Your task to perform on an android device: turn on javascript in the chrome app Image 0: 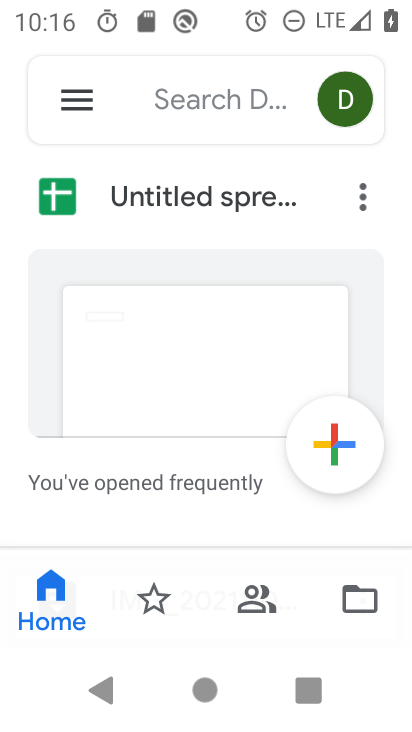
Step 0: drag from (169, 506) to (208, 275)
Your task to perform on an android device: turn on javascript in the chrome app Image 1: 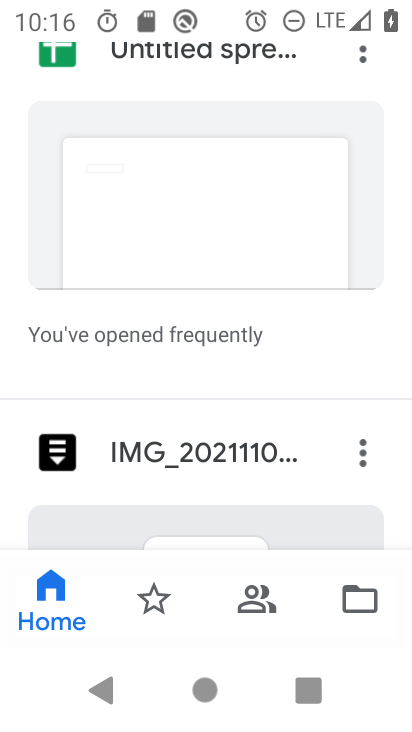
Step 1: press home button
Your task to perform on an android device: turn on javascript in the chrome app Image 2: 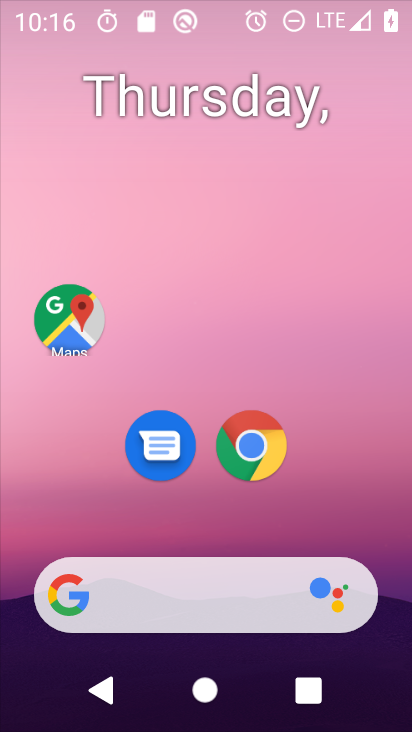
Step 2: drag from (209, 538) to (273, 125)
Your task to perform on an android device: turn on javascript in the chrome app Image 3: 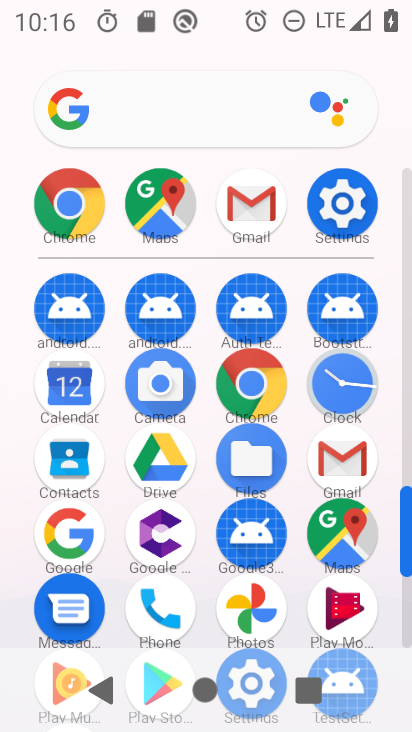
Step 3: click (245, 377)
Your task to perform on an android device: turn on javascript in the chrome app Image 4: 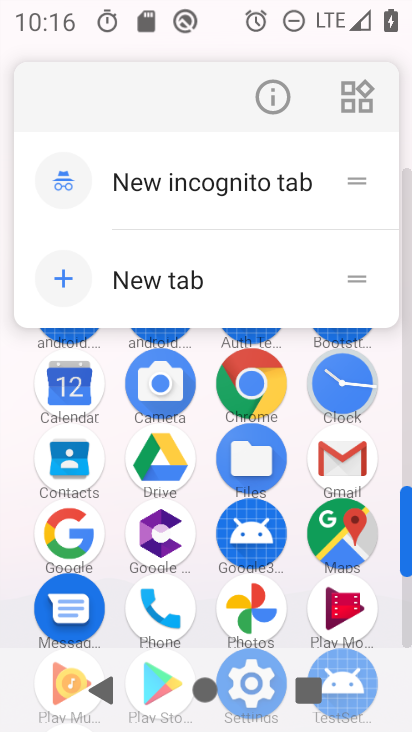
Step 4: click (273, 101)
Your task to perform on an android device: turn on javascript in the chrome app Image 5: 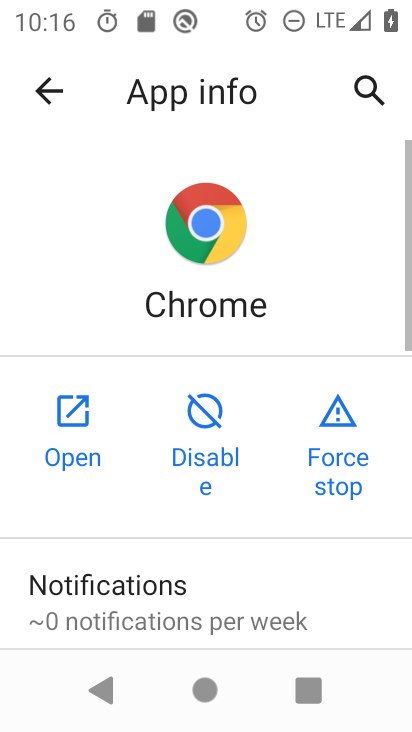
Step 5: click (56, 425)
Your task to perform on an android device: turn on javascript in the chrome app Image 6: 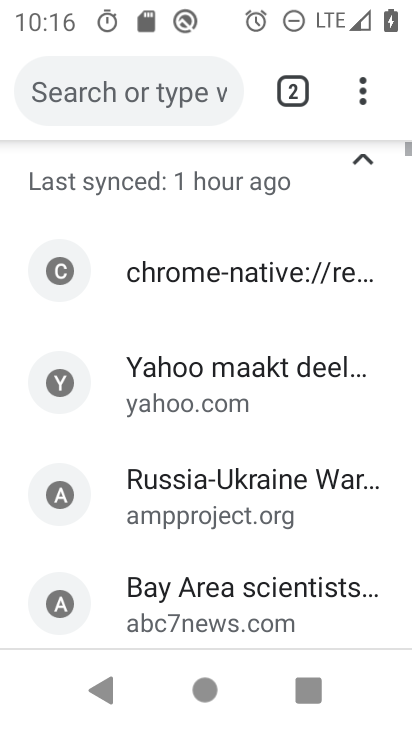
Step 6: drag from (364, 90) to (122, 465)
Your task to perform on an android device: turn on javascript in the chrome app Image 7: 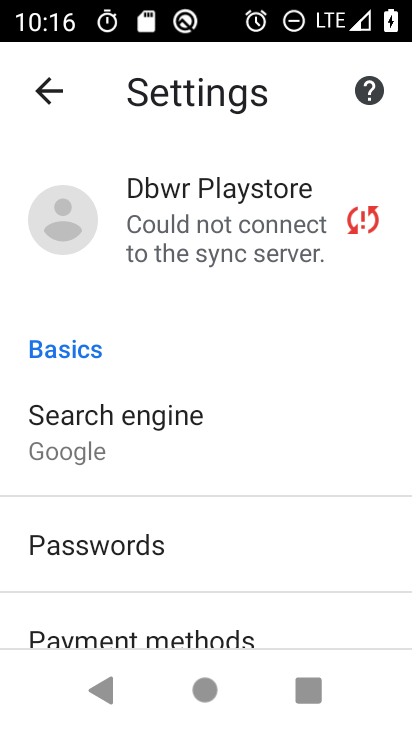
Step 7: drag from (225, 583) to (310, 132)
Your task to perform on an android device: turn on javascript in the chrome app Image 8: 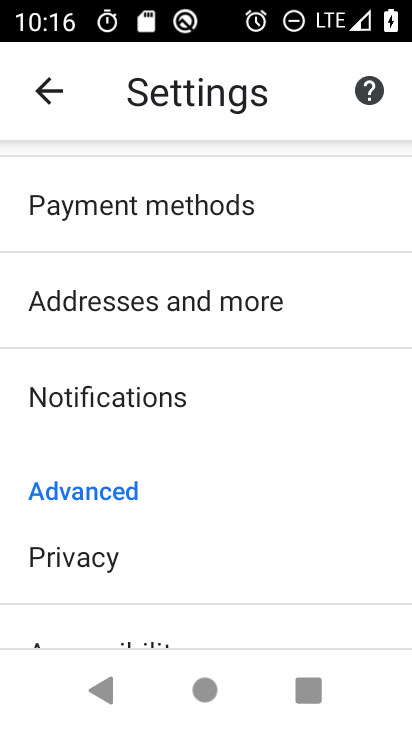
Step 8: drag from (198, 599) to (284, 196)
Your task to perform on an android device: turn on javascript in the chrome app Image 9: 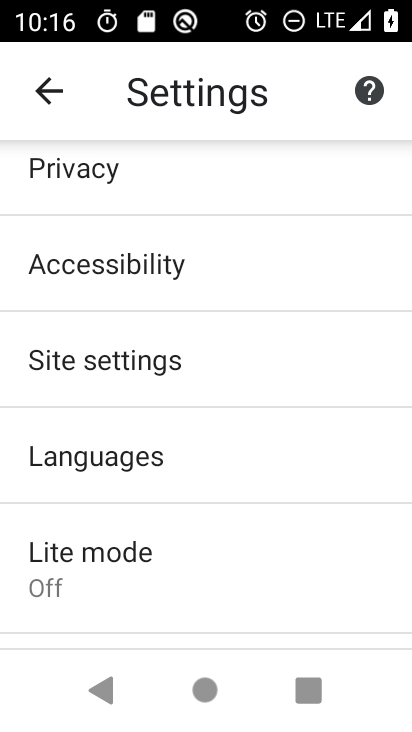
Step 9: drag from (153, 461) to (280, 625)
Your task to perform on an android device: turn on javascript in the chrome app Image 10: 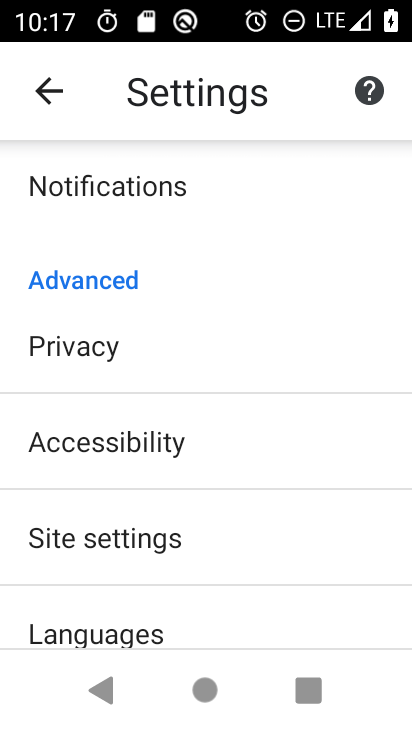
Step 10: click (181, 536)
Your task to perform on an android device: turn on javascript in the chrome app Image 11: 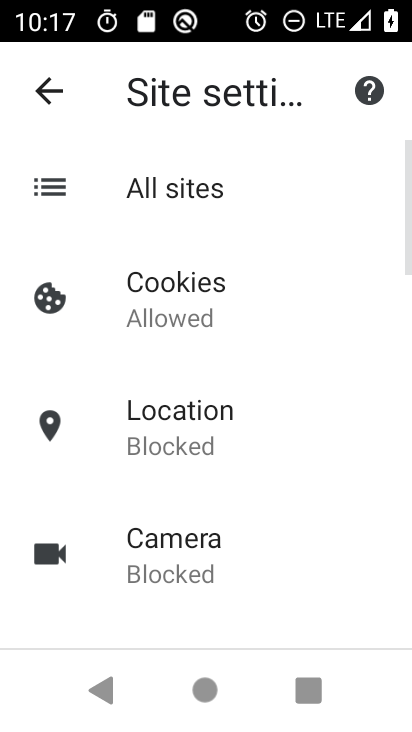
Step 11: drag from (234, 559) to (297, 202)
Your task to perform on an android device: turn on javascript in the chrome app Image 12: 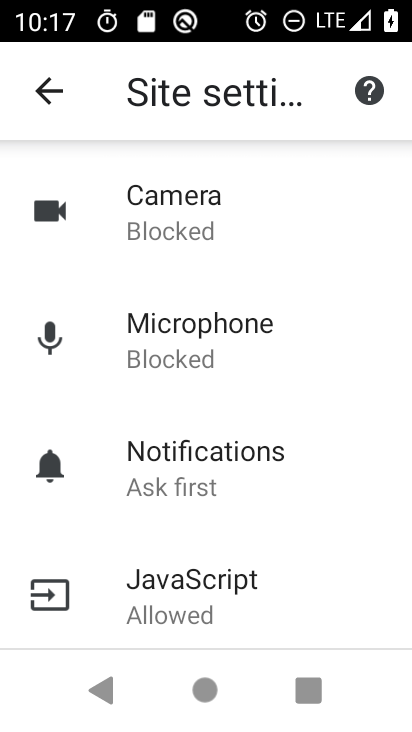
Step 12: click (198, 567)
Your task to perform on an android device: turn on javascript in the chrome app Image 13: 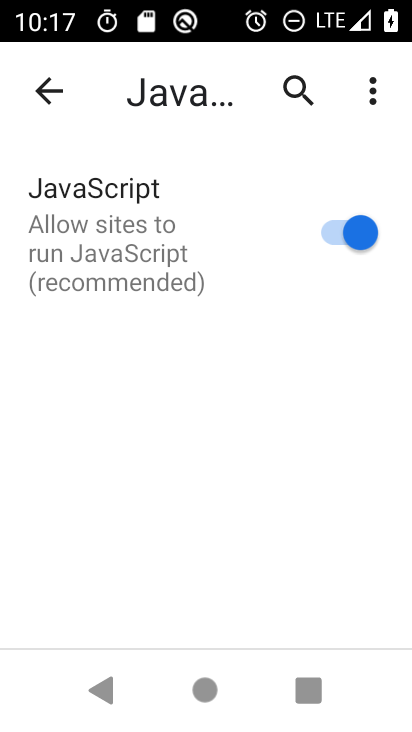
Step 13: task complete